Your task to perform on an android device: Go to Android settings Image 0: 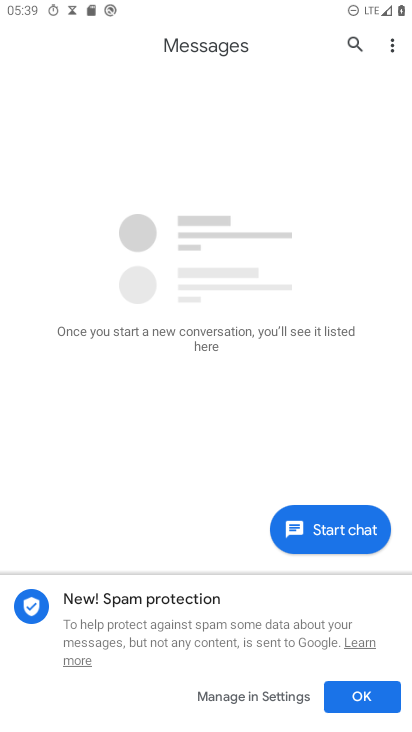
Step 0: press home button
Your task to perform on an android device: Go to Android settings Image 1: 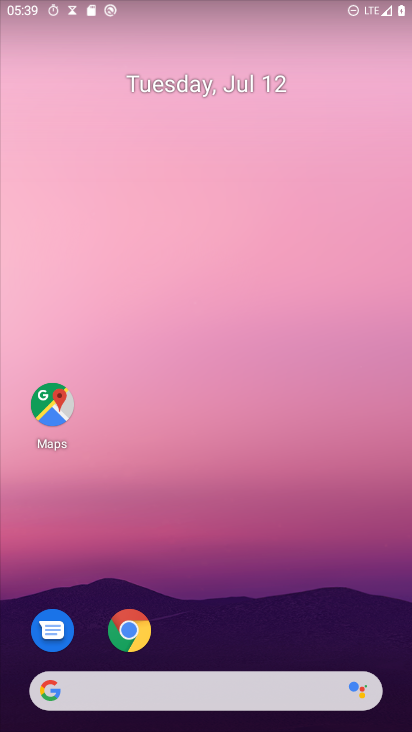
Step 1: drag from (315, 681) to (381, 154)
Your task to perform on an android device: Go to Android settings Image 2: 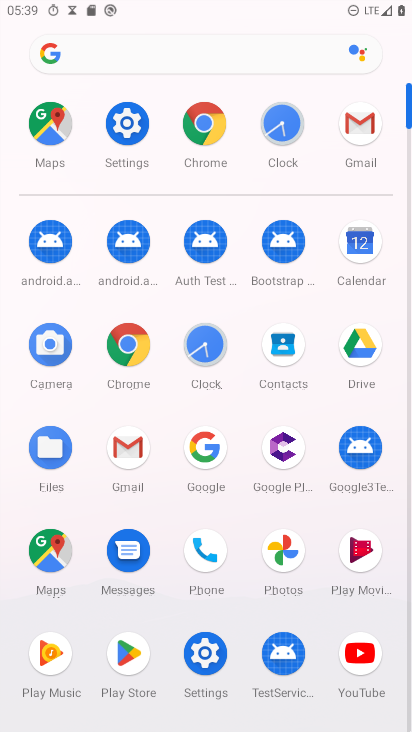
Step 2: click (113, 110)
Your task to perform on an android device: Go to Android settings Image 3: 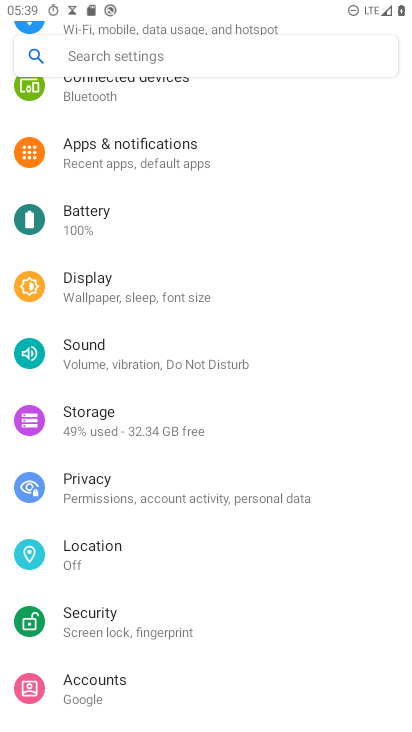
Step 3: drag from (178, 683) to (173, 158)
Your task to perform on an android device: Go to Android settings Image 4: 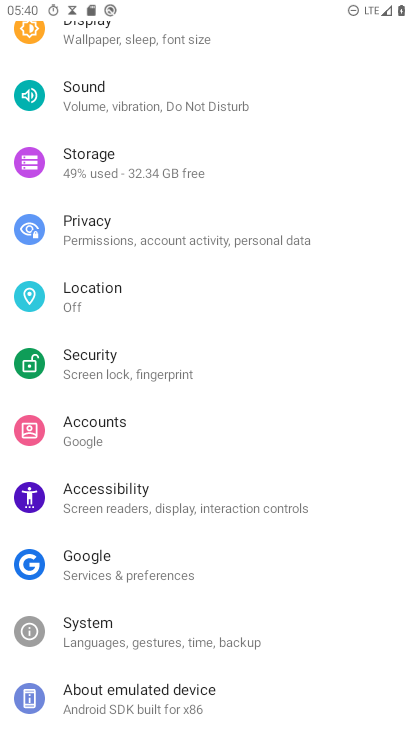
Step 4: click (178, 705)
Your task to perform on an android device: Go to Android settings Image 5: 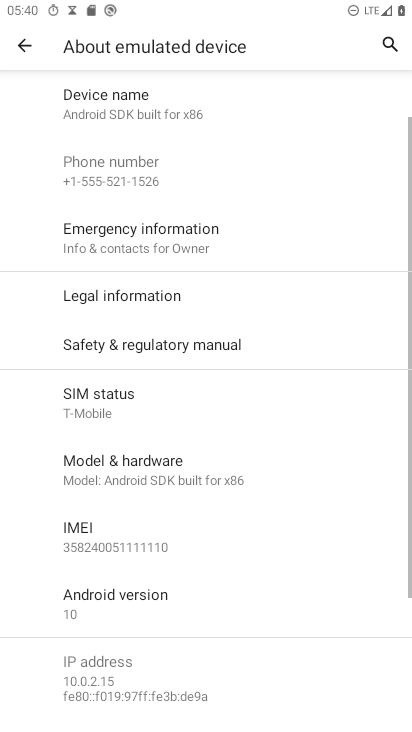
Step 5: task complete